Your task to perform on an android device: turn on priority inbox in the gmail app Image 0: 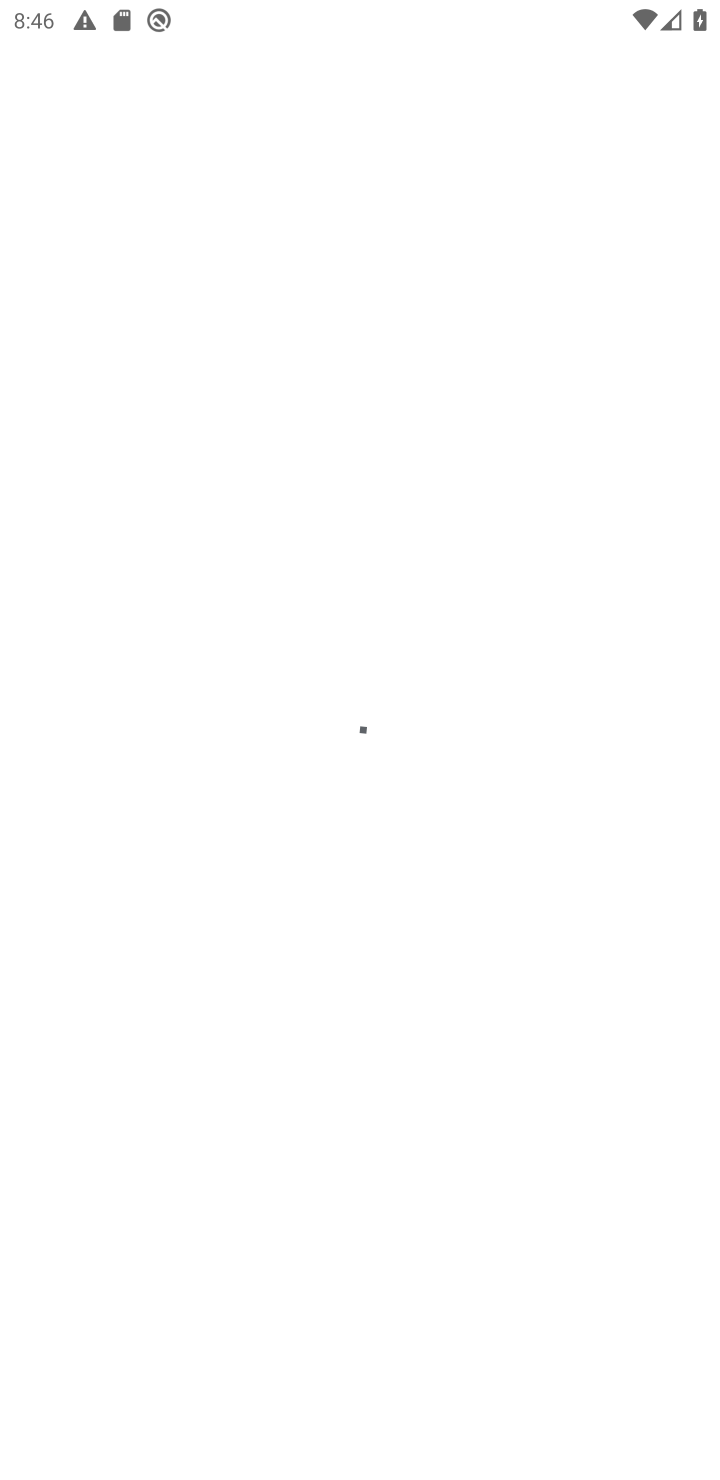
Step 0: press back button
Your task to perform on an android device: turn on priority inbox in the gmail app Image 1: 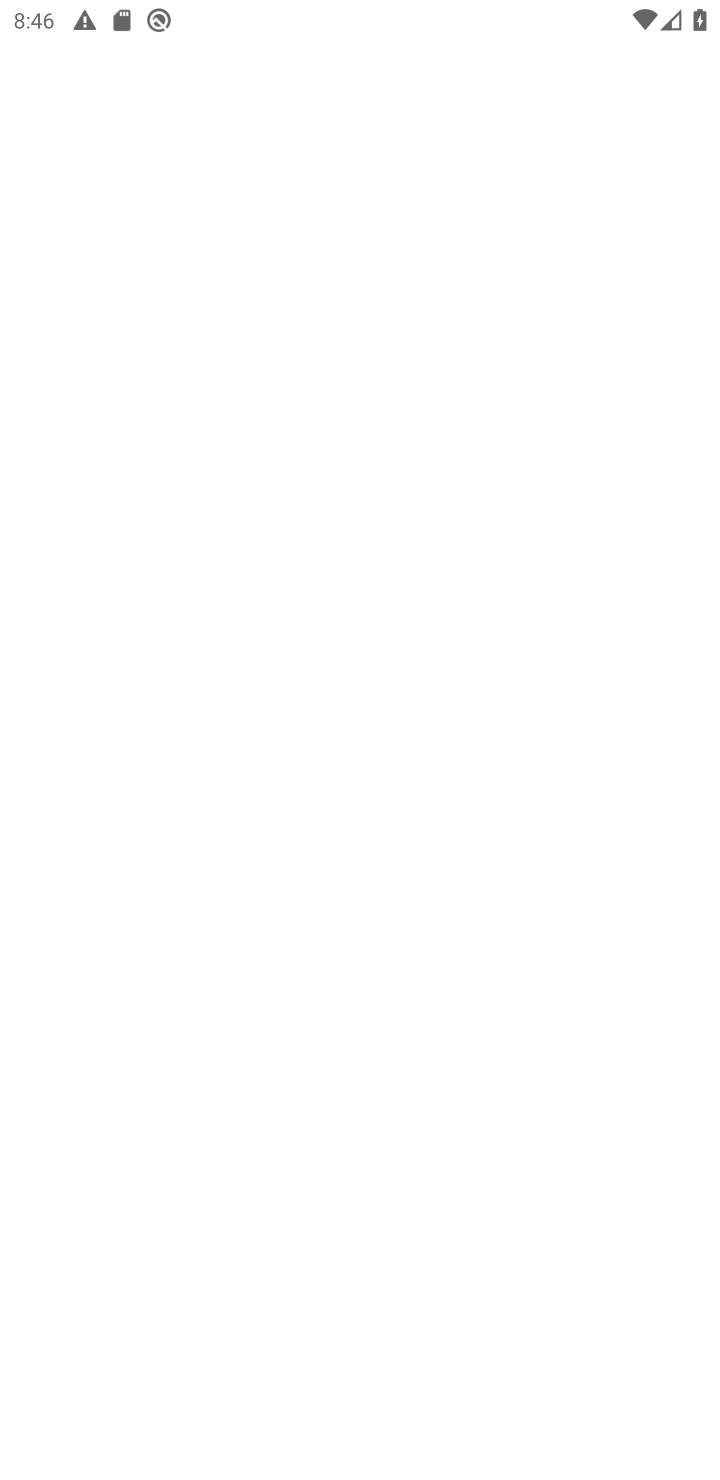
Step 1: press home button
Your task to perform on an android device: turn on priority inbox in the gmail app Image 2: 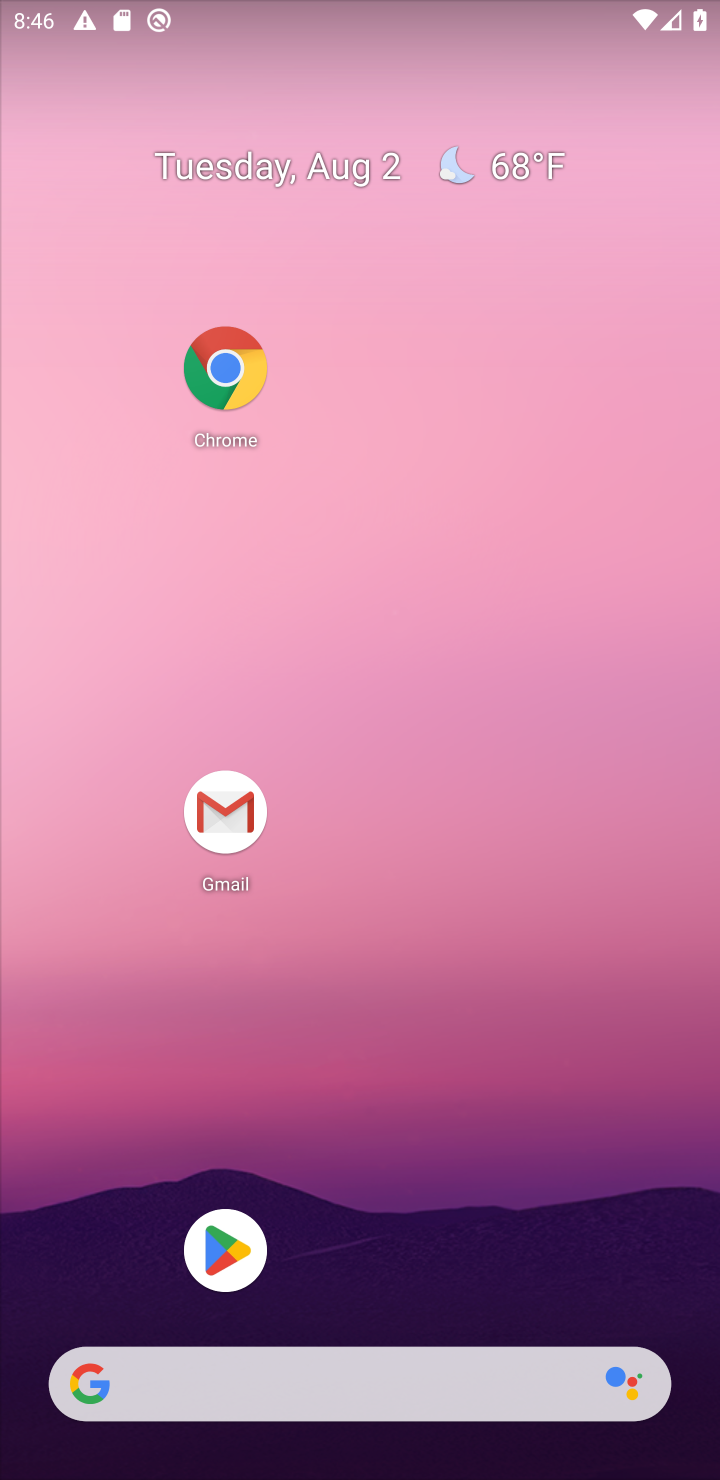
Step 2: click (431, 401)
Your task to perform on an android device: turn on priority inbox in the gmail app Image 3: 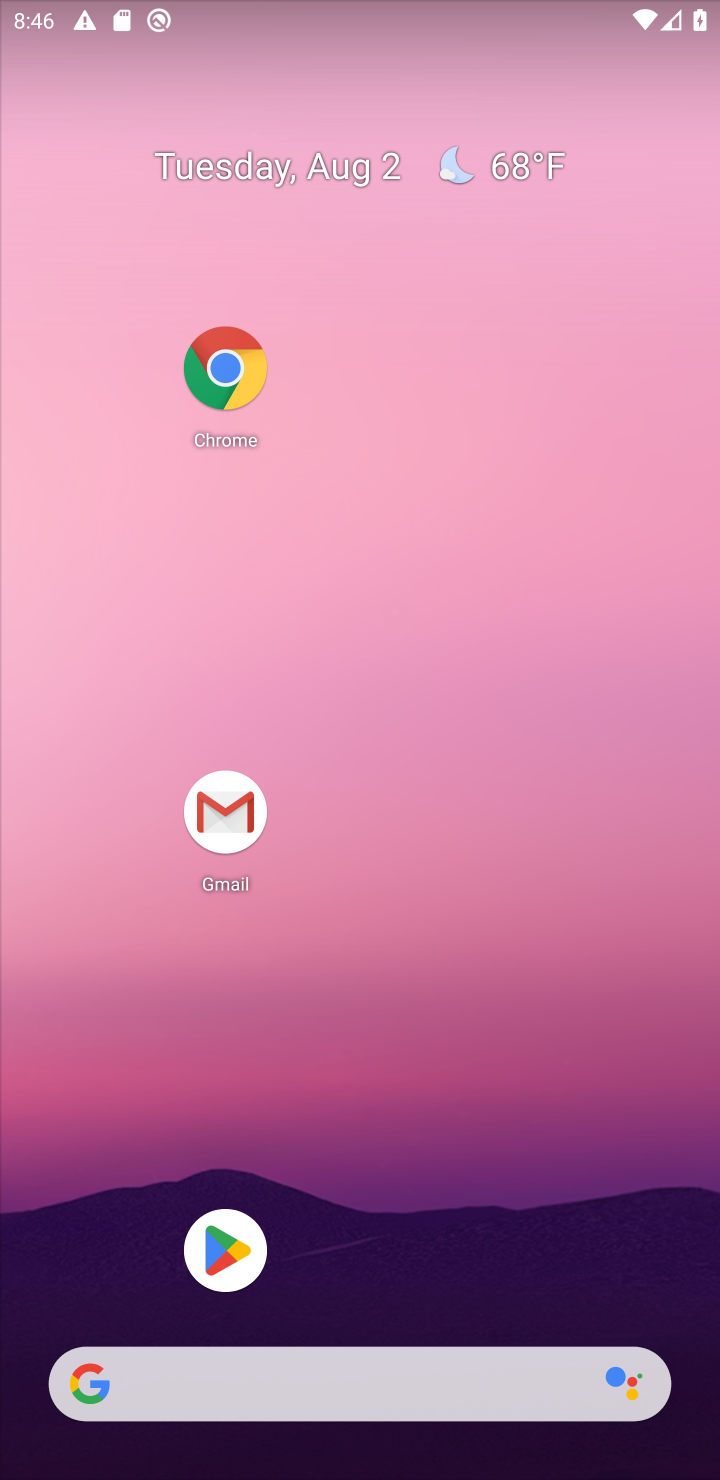
Step 3: drag from (277, 709) to (253, 502)
Your task to perform on an android device: turn on priority inbox in the gmail app Image 4: 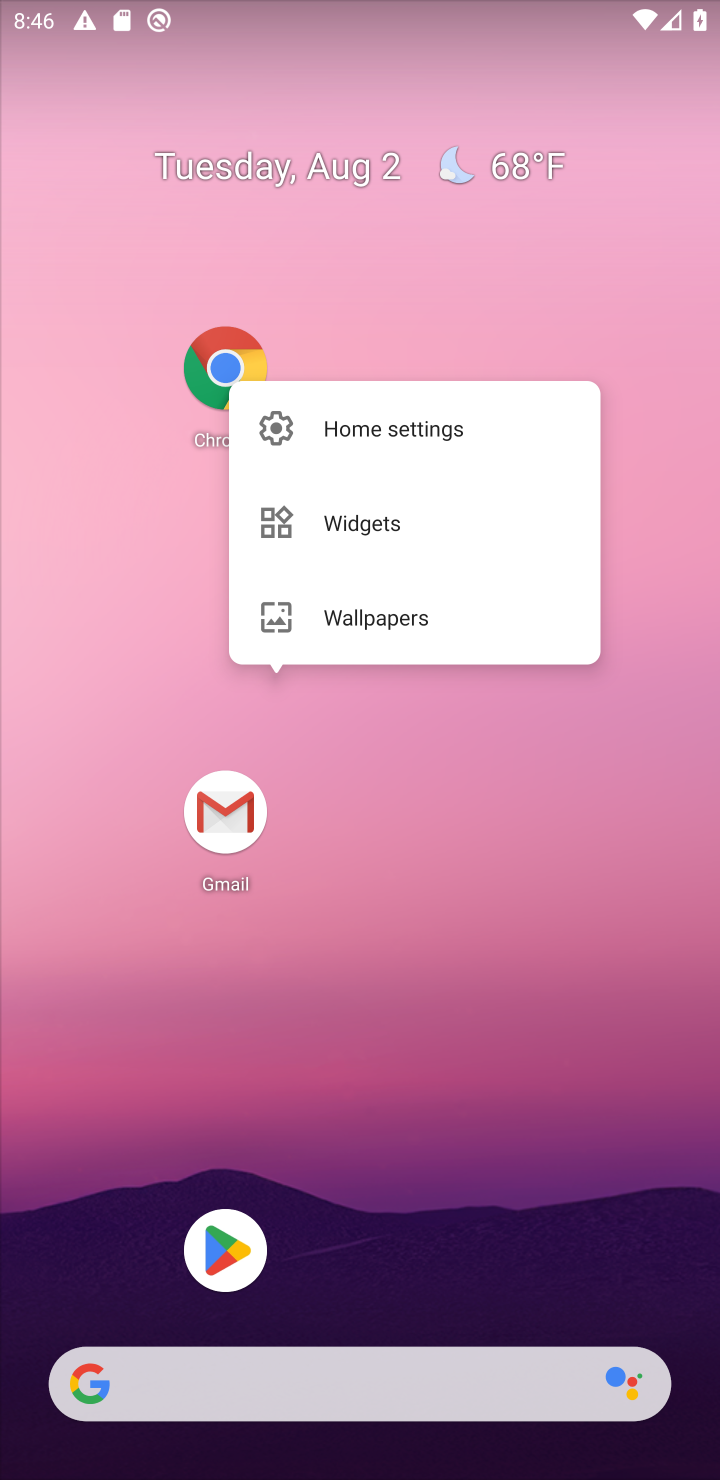
Step 4: drag from (362, 1355) to (237, 501)
Your task to perform on an android device: turn on priority inbox in the gmail app Image 5: 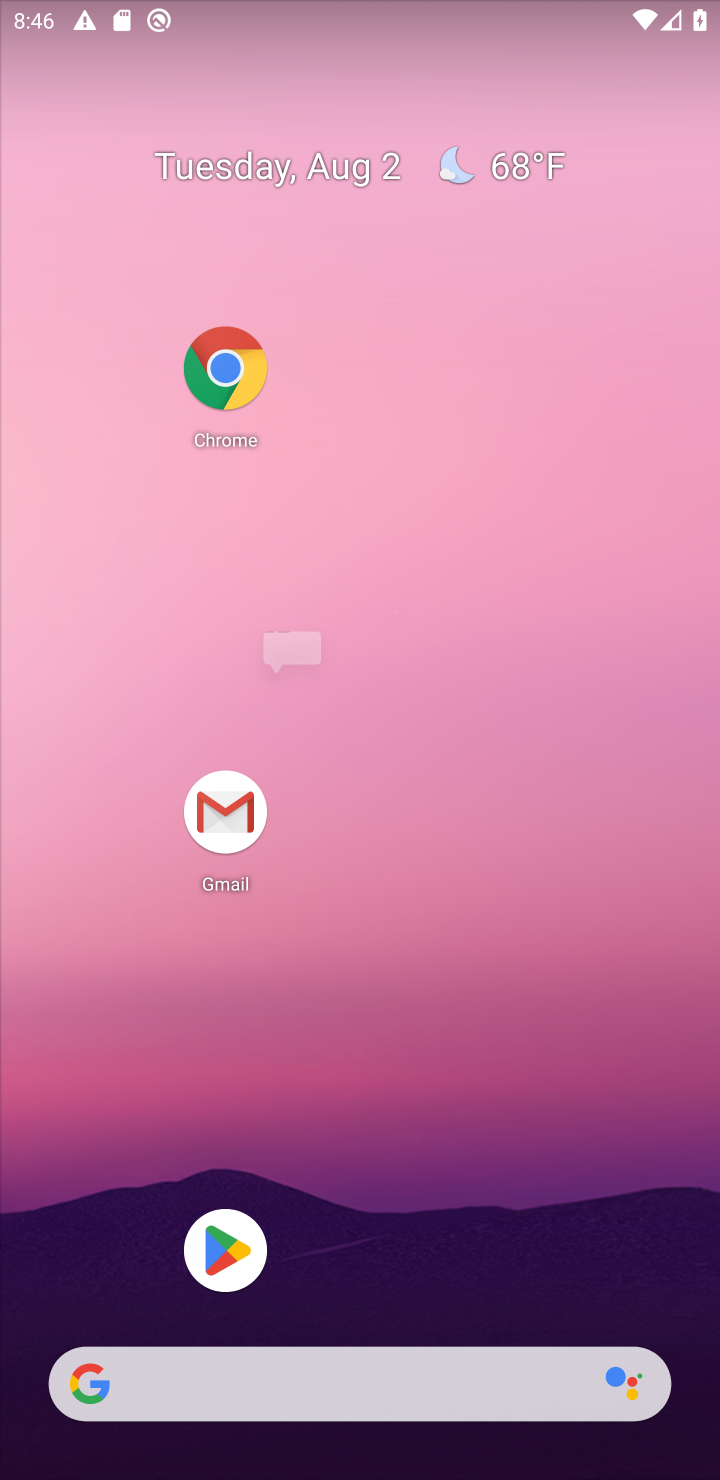
Step 5: drag from (265, 468) to (449, 556)
Your task to perform on an android device: turn on priority inbox in the gmail app Image 6: 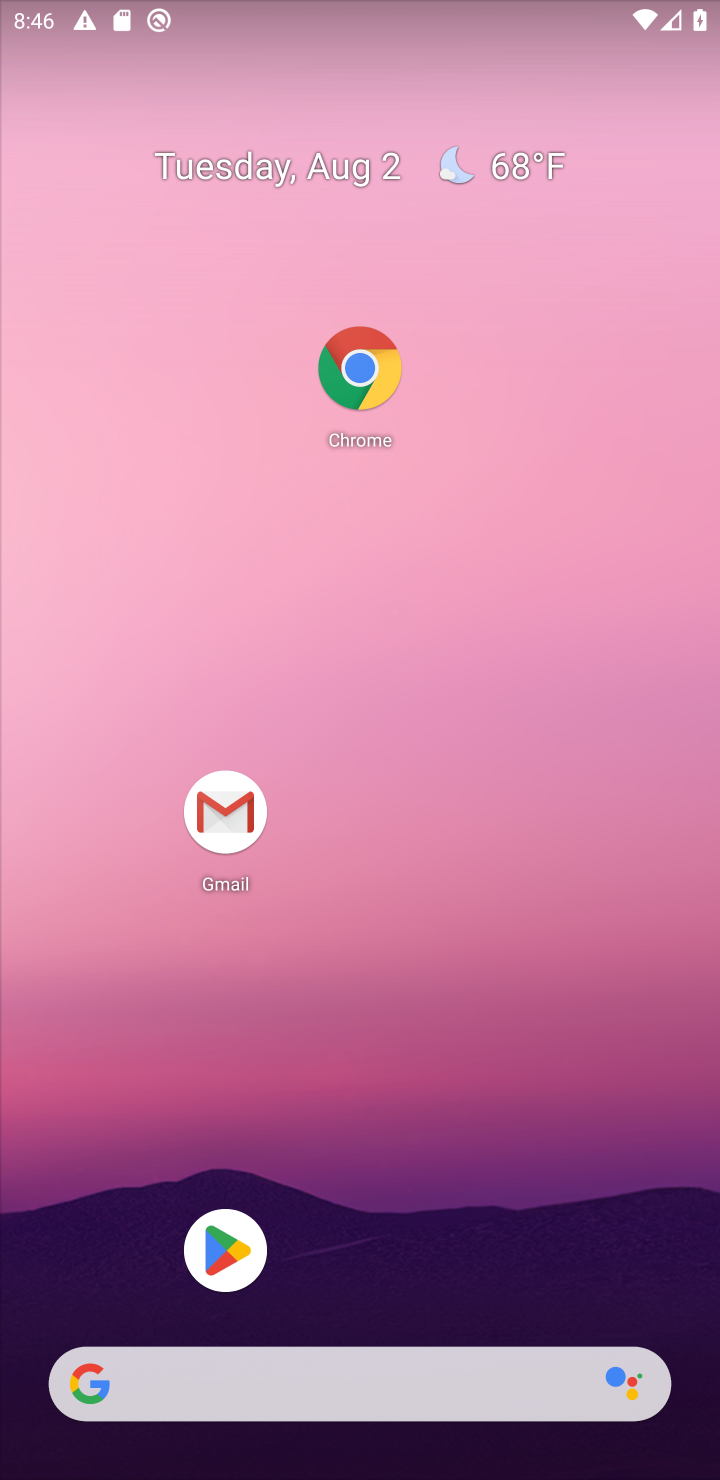
Step 6: click (496, 650)
Your task to perform on an android device: turn on priority inbox in the gmail app Image 7: 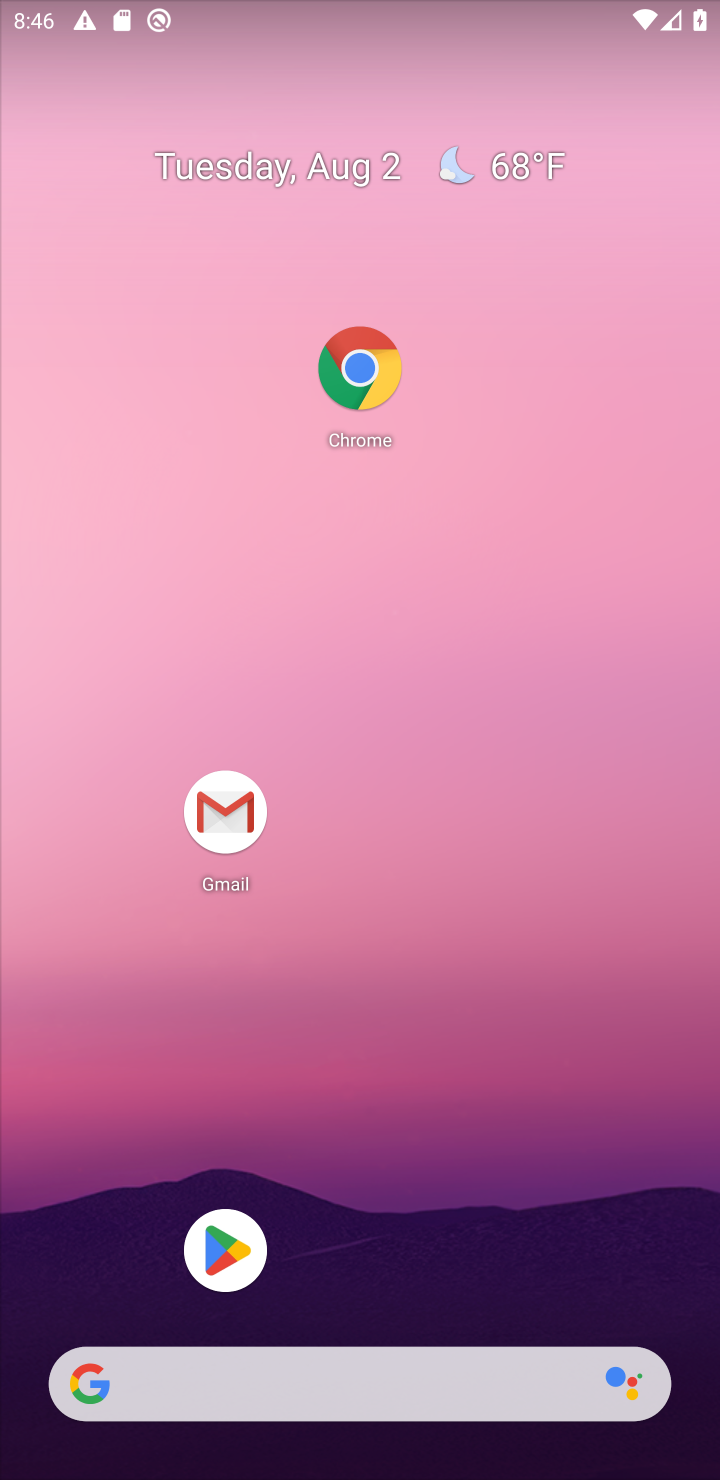
Step 7: click (496, 650)
Your task to perform on an android device: turn on priority inbox in the gmail app Image 8: 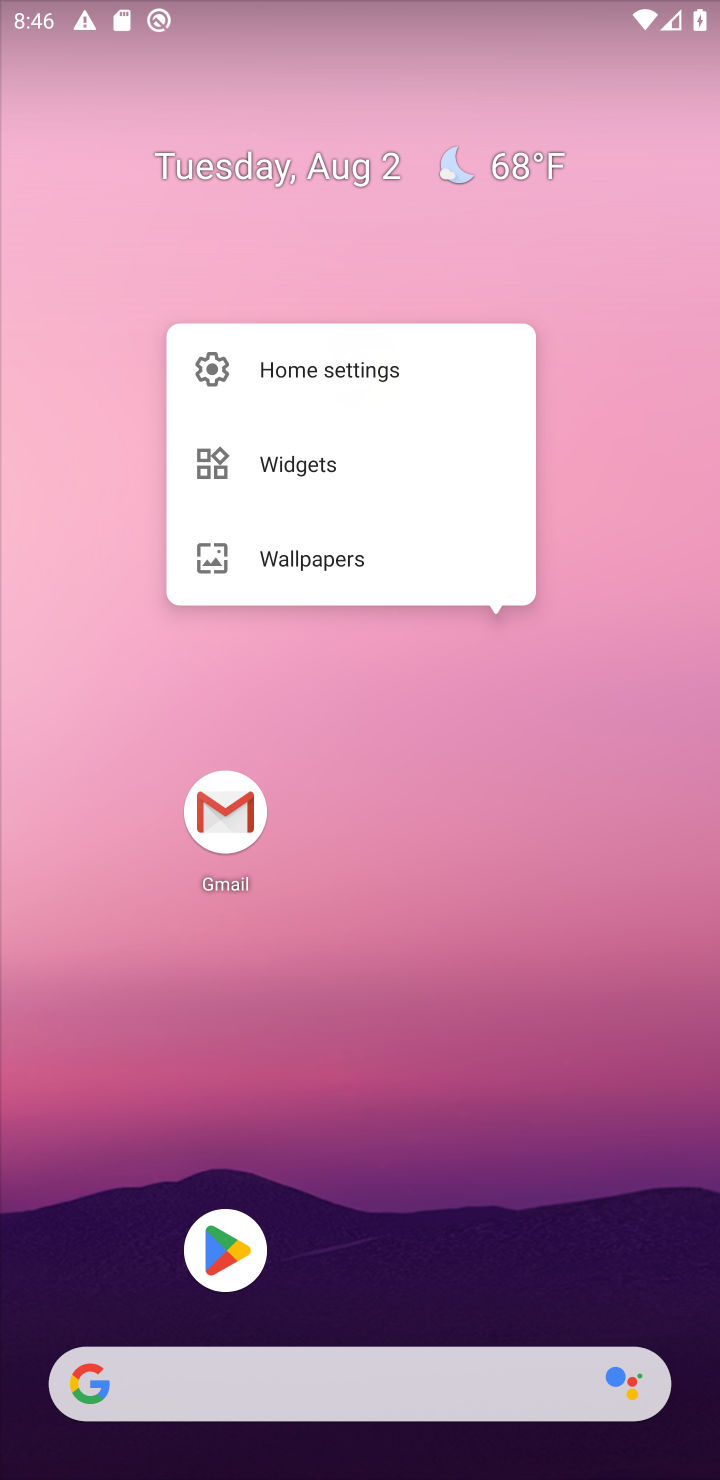
Step 8: click (650, 870)
Your task to perform on an android device: turn on priority inbox in the gmail app Image 9: 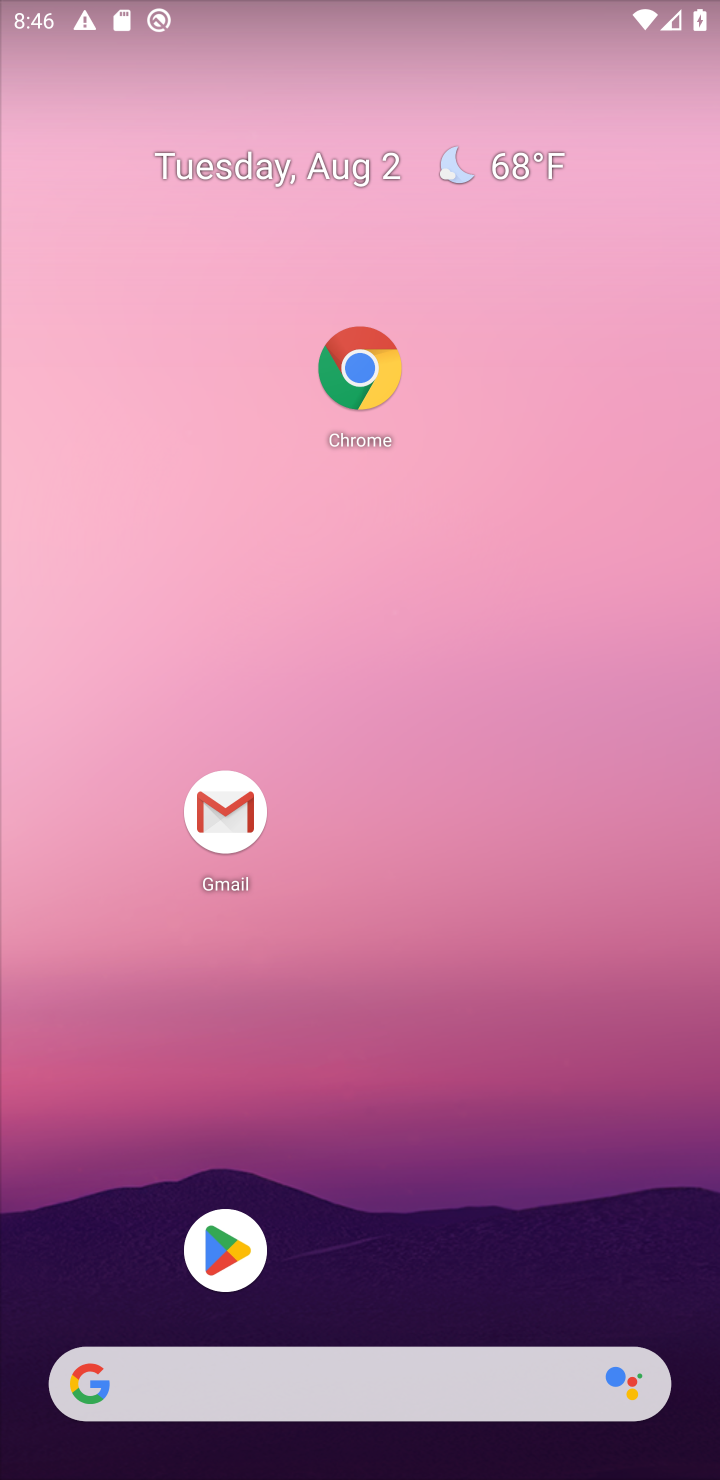
Step 9: click (143, 152)
Your task to perform on an android device: turn on priority inbox in the gmail app Image 10: 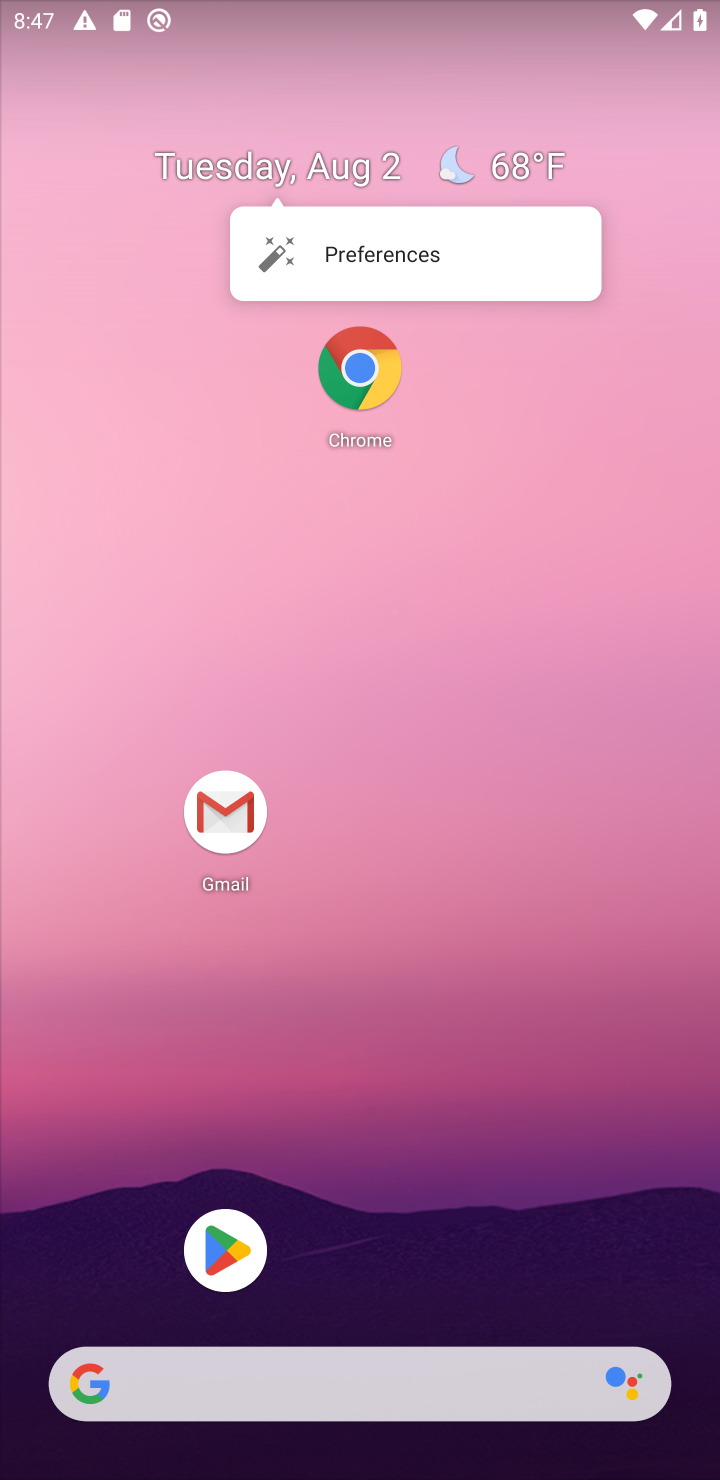
Step 10: click (459, 476)
Your task to perform on an android device: turn on priority inbox in the gmail app Image 11: 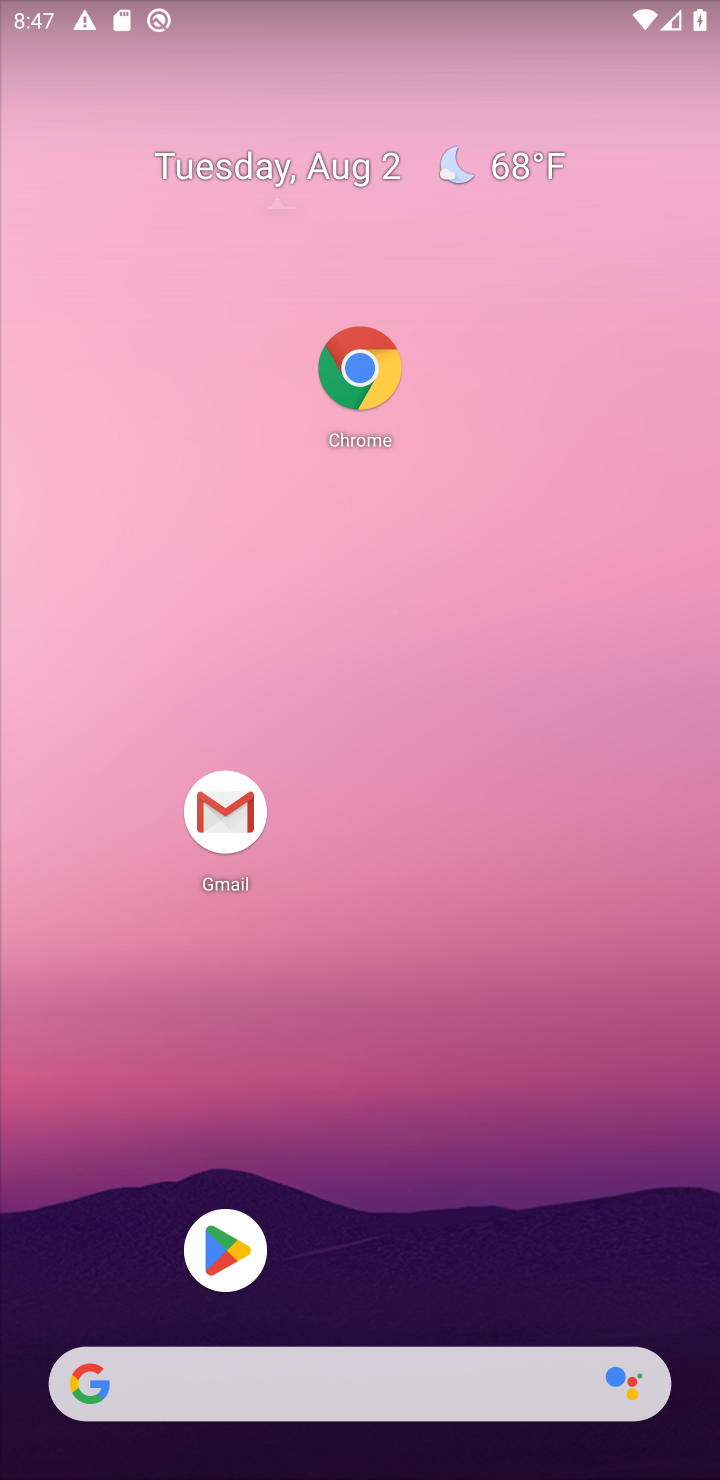
Step 11: drag from (314, 1112) to (279, 452)
Your task to perform on an android device: turn on priority inbox in the gmail app Image 12: 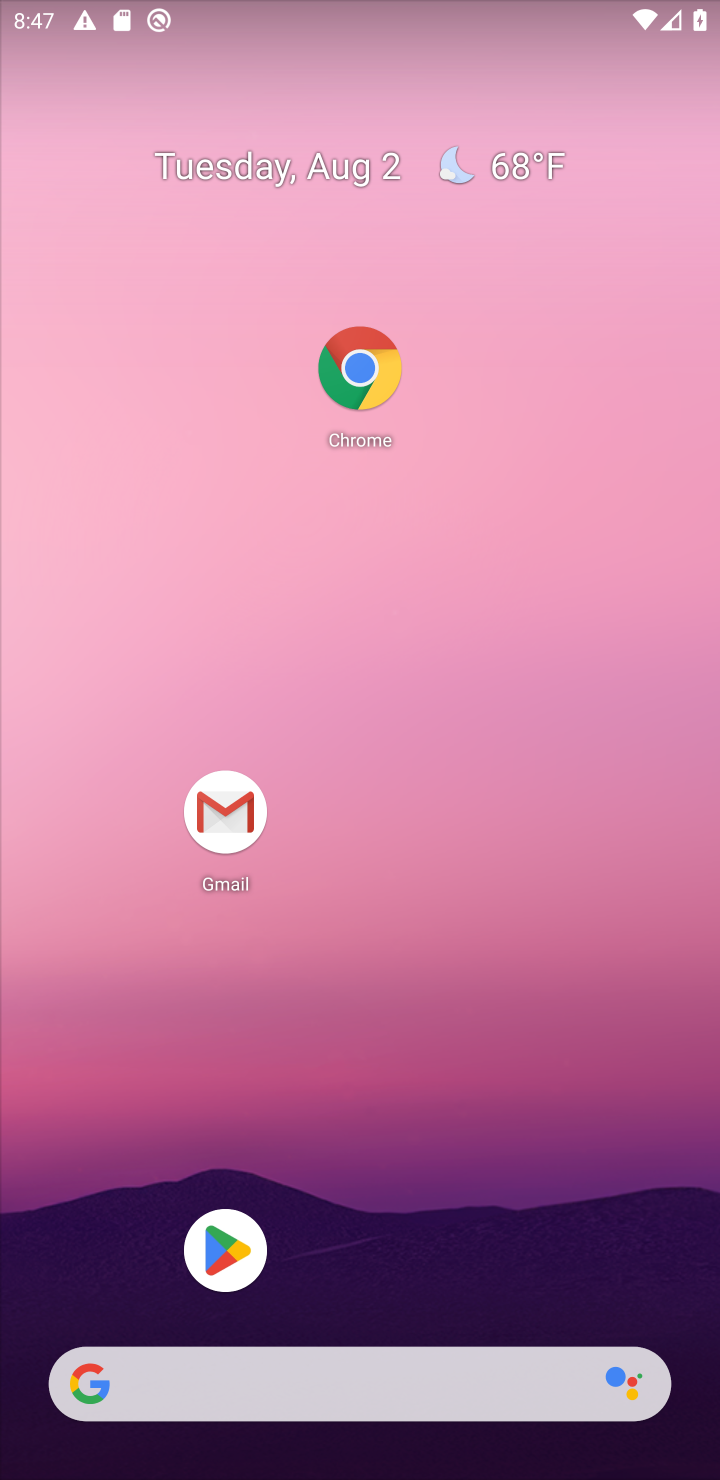
Step 12: drag from (414, 919) to (454, 77)
Your task to perform on an android device: turn on priority inbox in the gmail app Image 13: 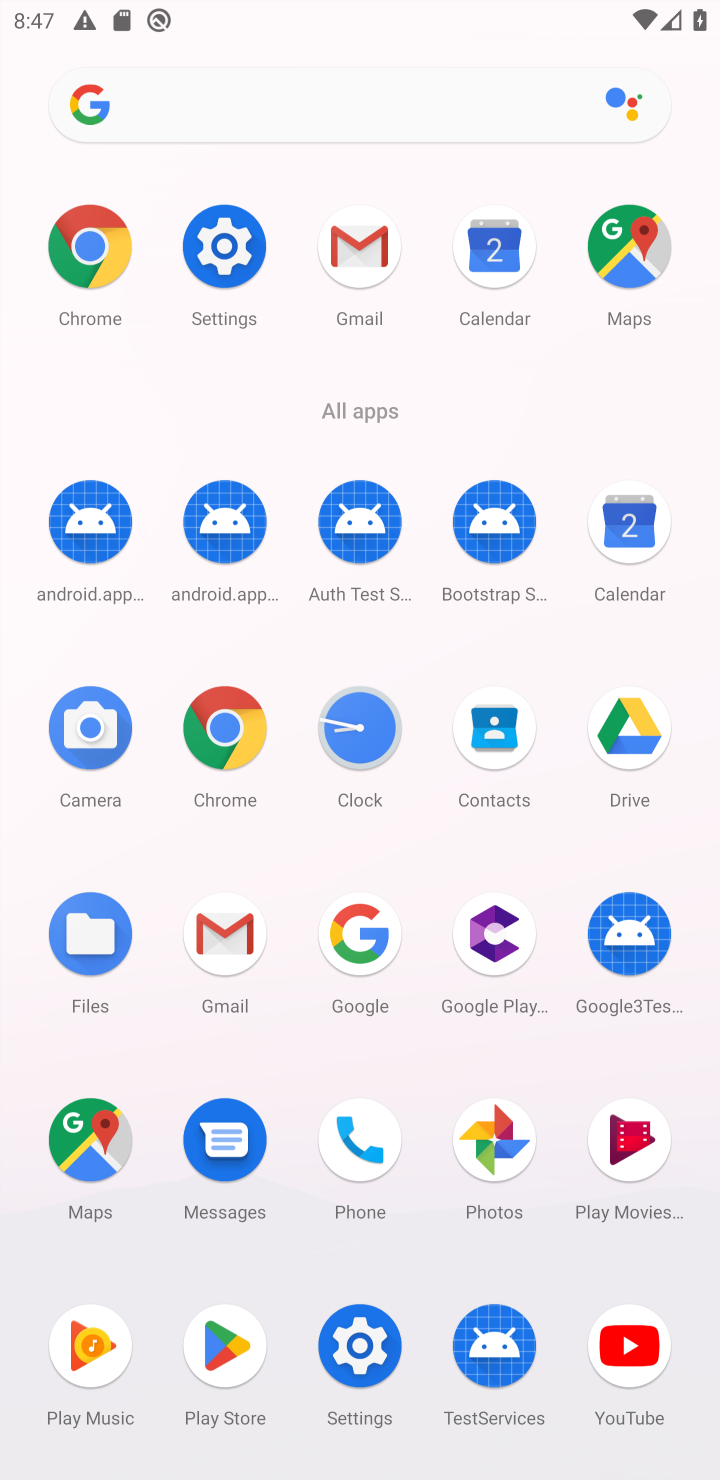
Step 13: drag from (453, 874) to (388, 206)
Your task to perform on an android device: turn on priority inbox in the gmail app Image 14: 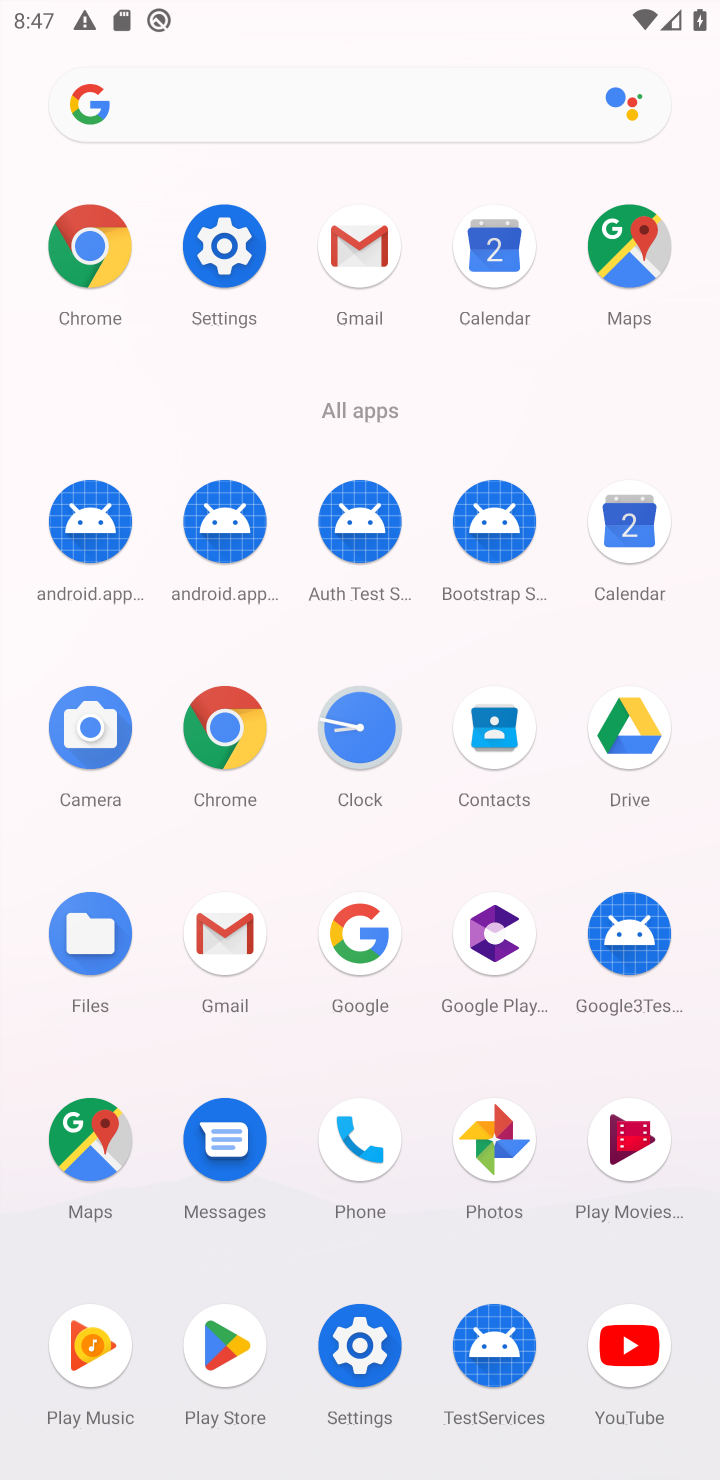
Step 14: click (227, 924)
Your task to perform on an android device: turn on priority inbox in the gmail app Image 15: 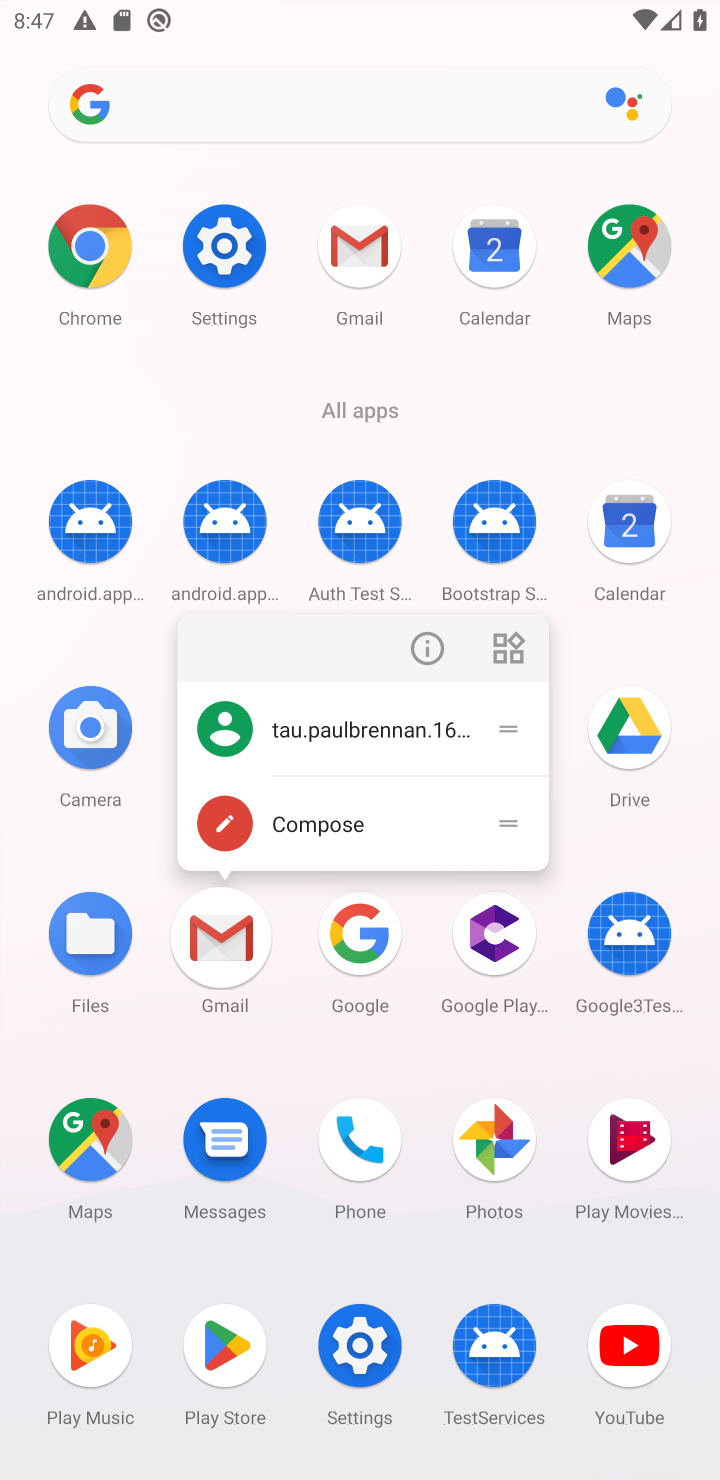
Step 15: click (223, 928)
Your task to perform on an android device: turn on priority inbox in the gmail app Image 16: 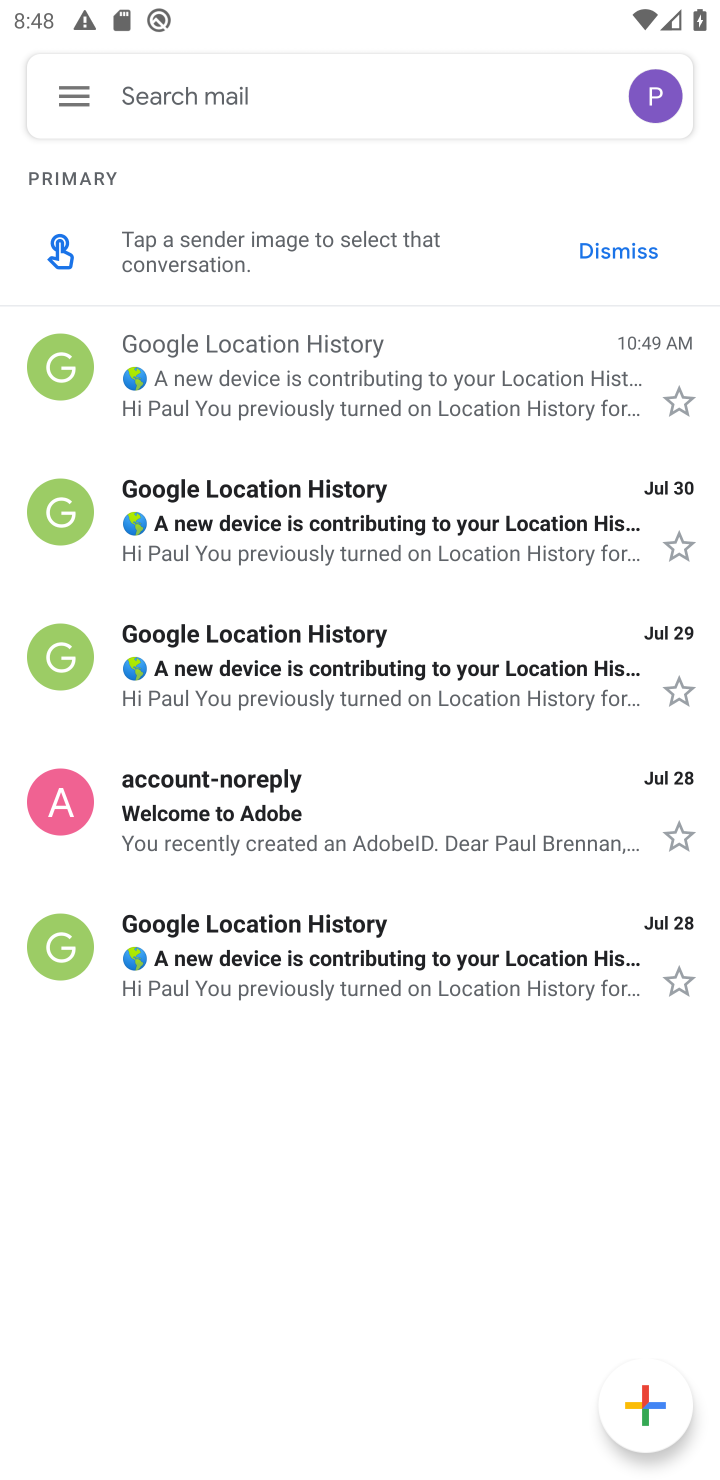
Step 16: click (77, 93)
Your task to perform on an android device: turn on priority inbox in the gmail app Image 17: 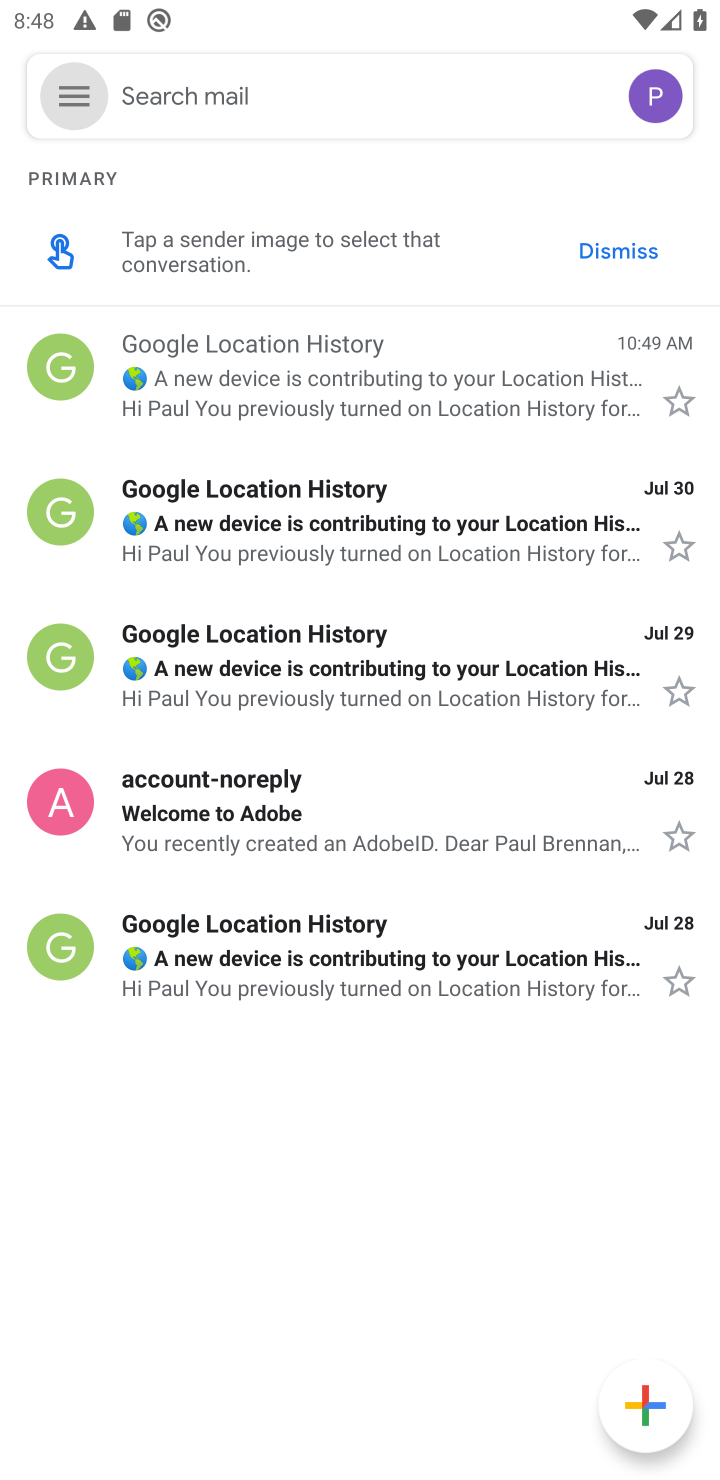
Step 17: drag from (77, 93) to (325, 533)
Your task to perform on an android device: turn on priority inbox in the gmail app Image 18: 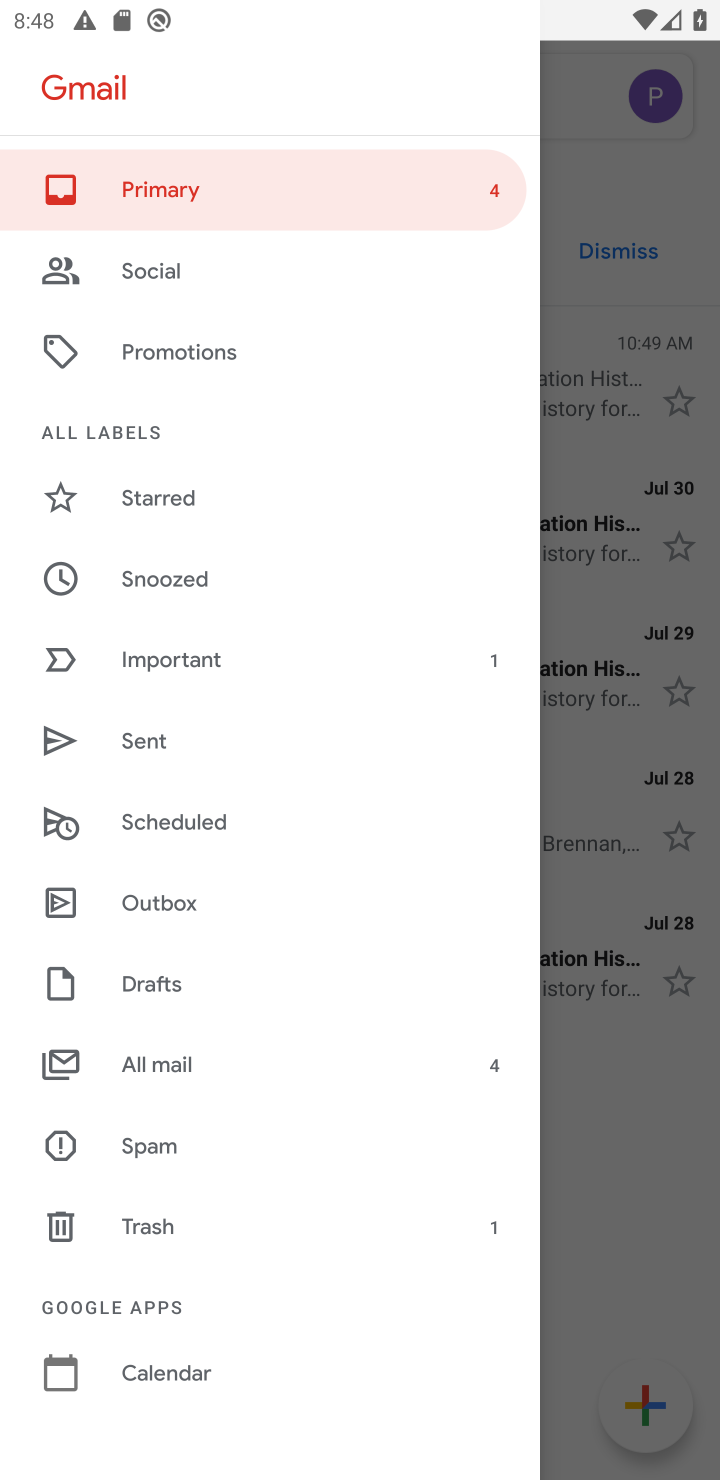
Step 18: drag from (127, 1074) to (159, 219)
Your task to perform on an android device: turn on priority inbox in the gmail app Image 19: 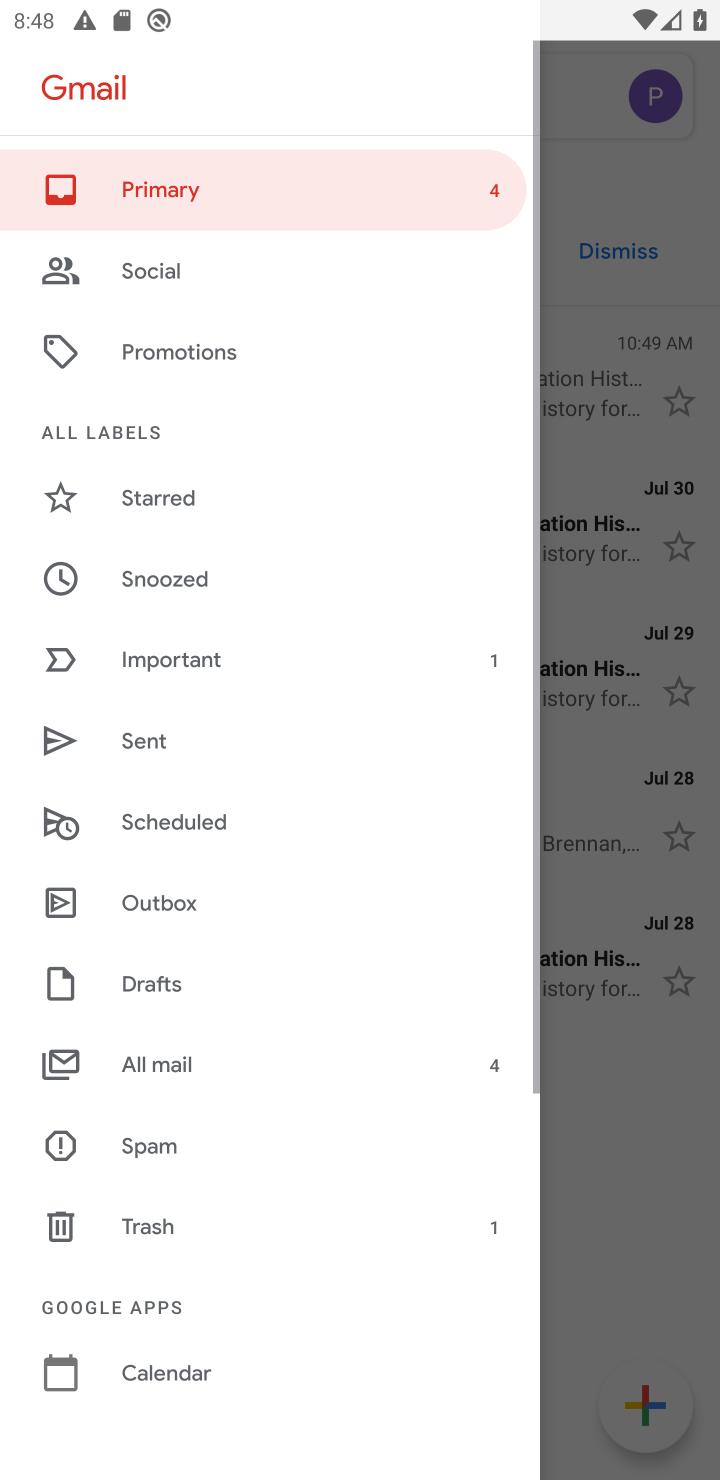
Step 19: drag from (155, 1090) to (155, 473)
Your task to perform on an android device: turn on priority inbox in the gmail app Image 20: 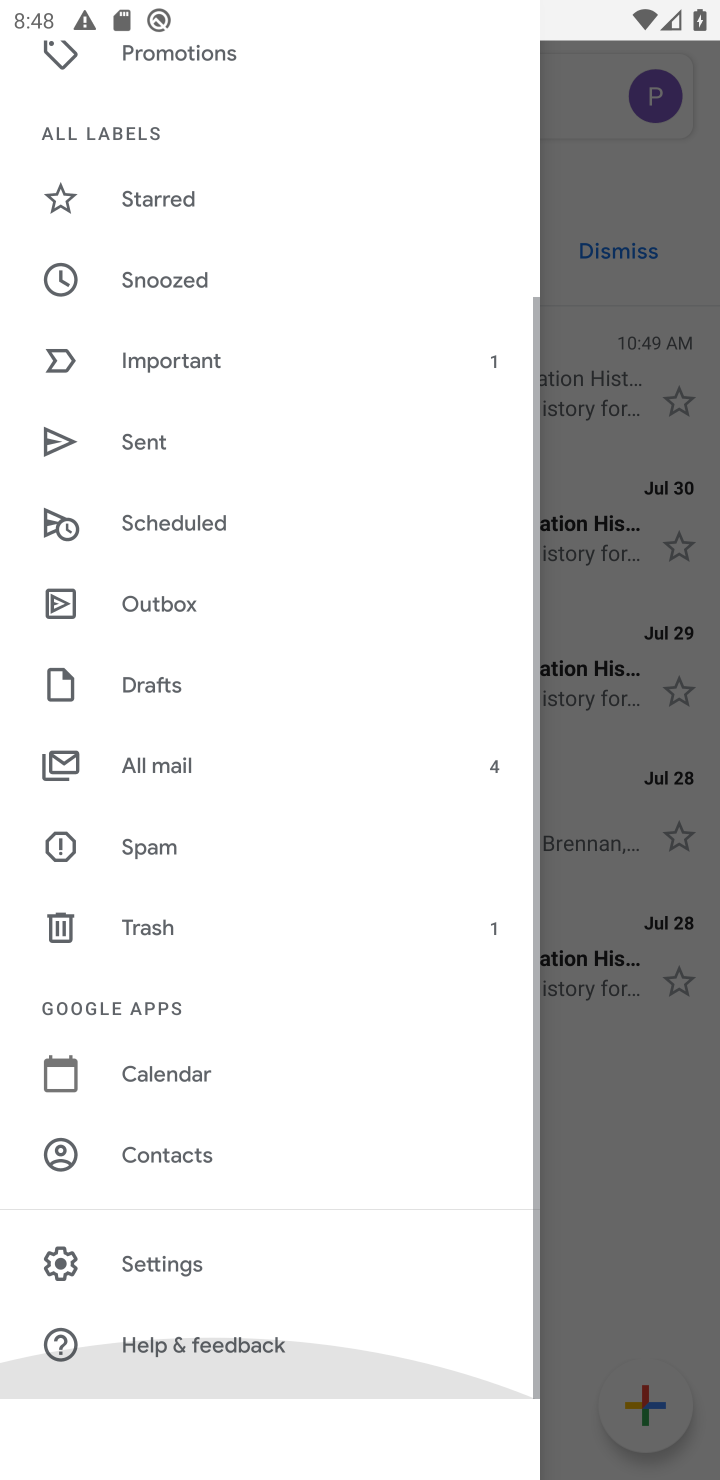
Step 20: drag from (155, 941) to (172, 835)
Your task to perform on an android device: turn on priority inbox in the gmail app Image 21: 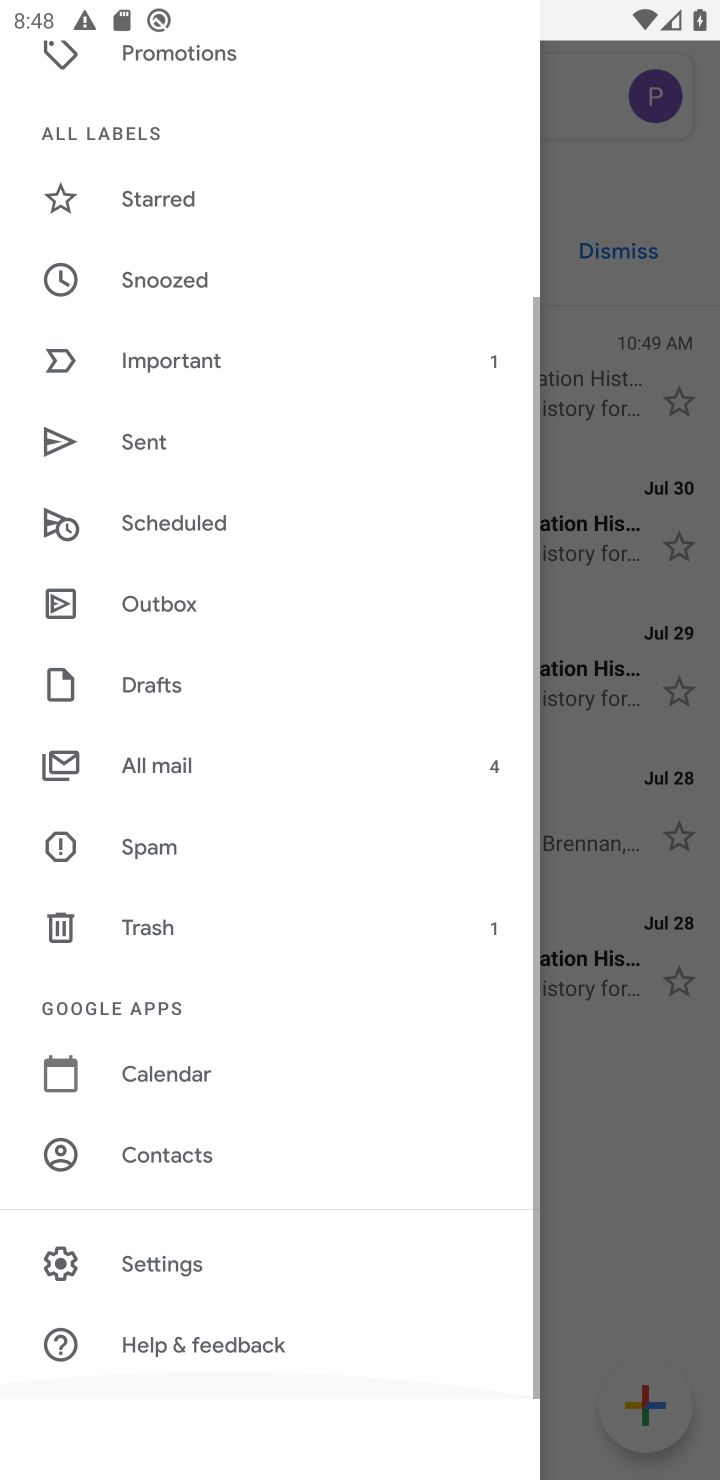
Step 21: click (164, 1254)
Your task to perform on an android device: turn on priority inbox in the gmail app Image 22: 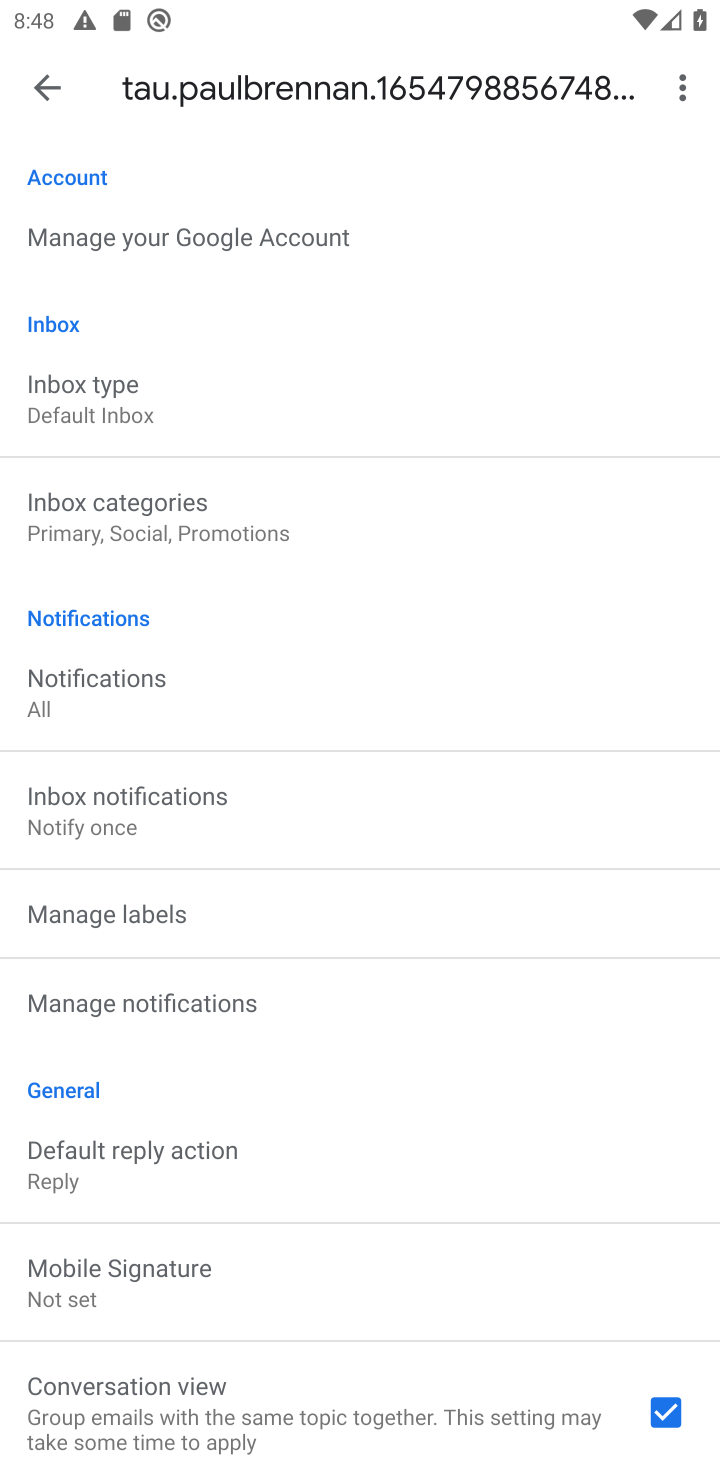
Step 22: click (101, 403)
Your task to perform on an android device: turn on priority inbox in the gmail app Image 23: 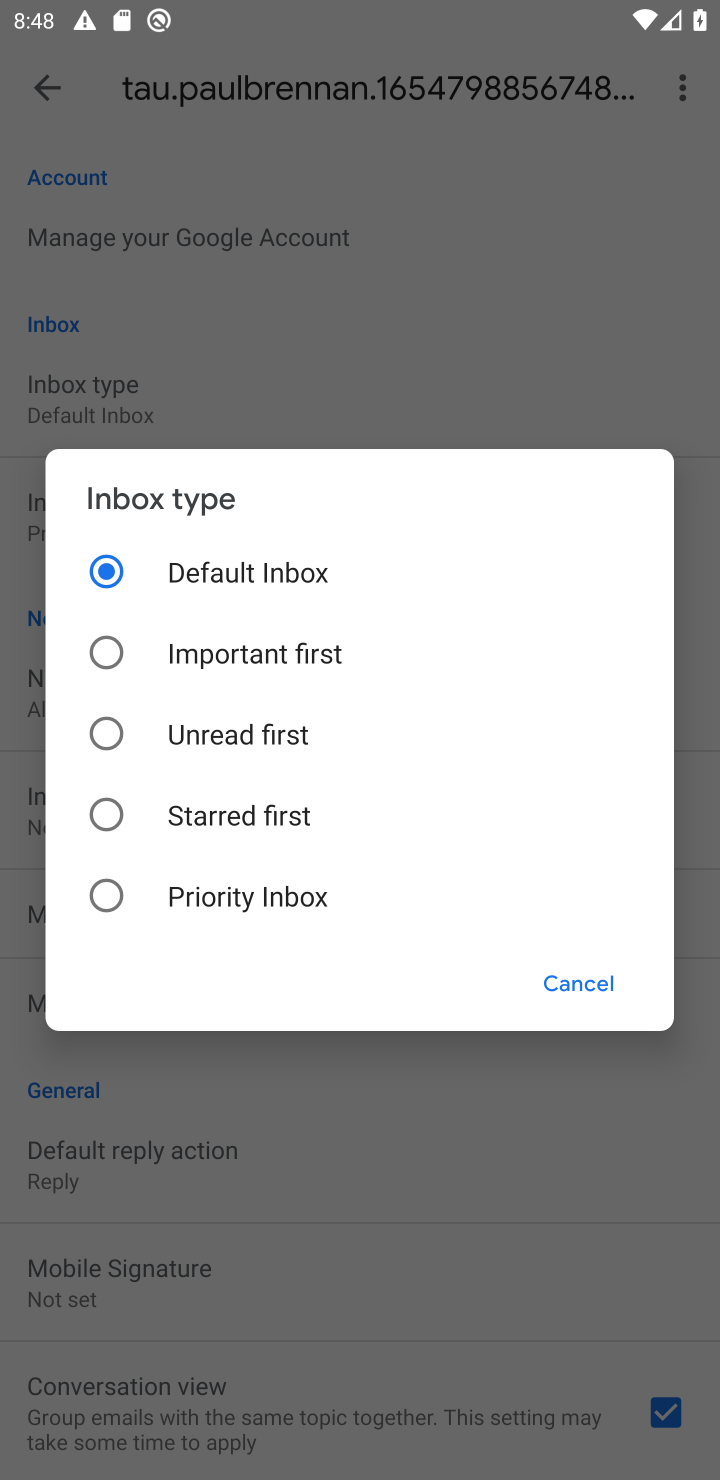
Step 23: click (120, 903)
Your task to perform on an android device: turn on priority inbox in the gmail app Image 24: 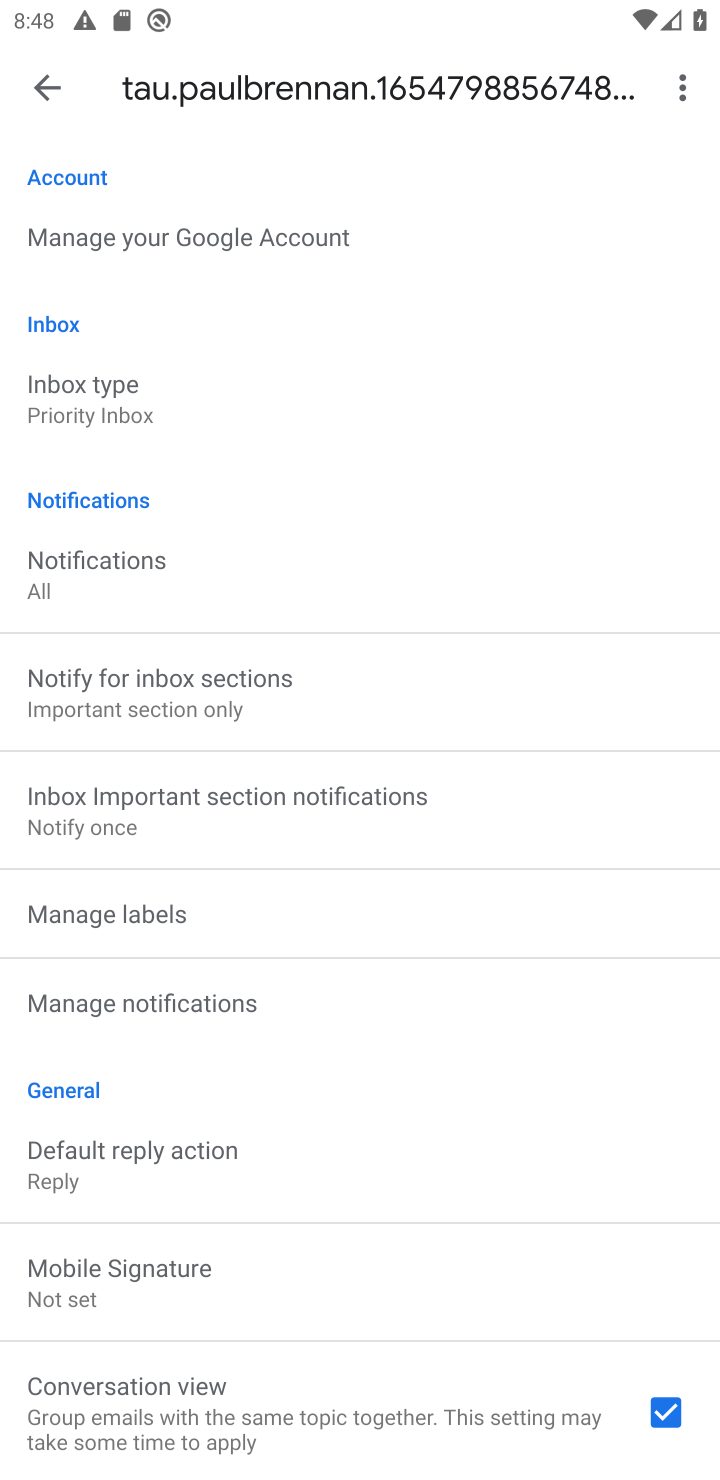
Step 24: task complete